Your task to perform on an android device: turn notification dots on Image 0: 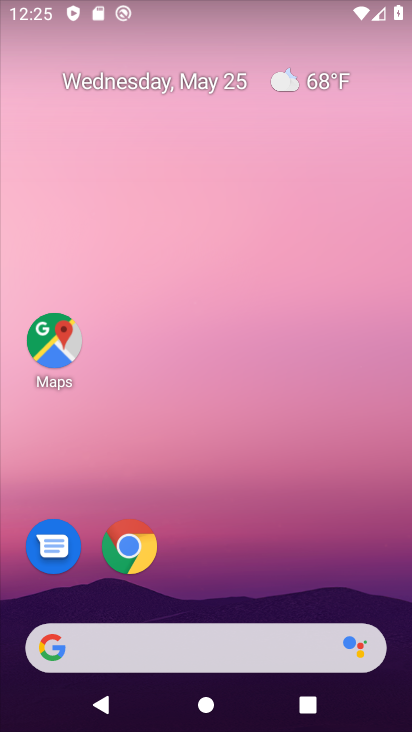
Step 0: drag from (306, 579) to (341, 140)
Your task to perform on an android device: turn notification dots on Image 1: 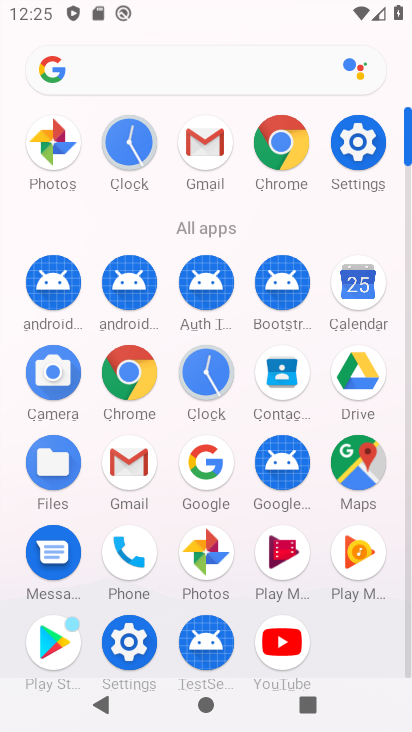
Step 1: click (355, 152)
Your task to perform on an android device: turn notification dots on Image 2: 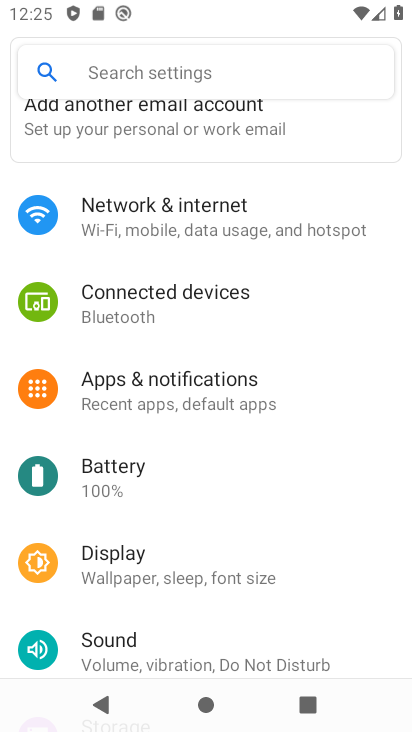
Step 2: click (260, 378)
Your task to perform on an android device: turn notification dots on Image 3: 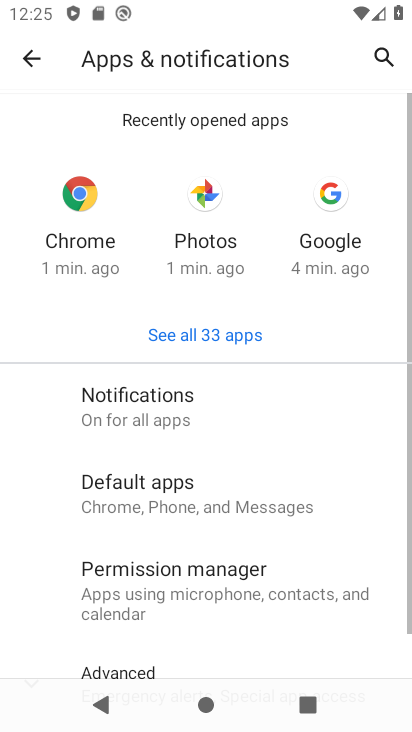
Step 3: click (268, 400)
Your task to perform on an android device: turn notification dots on Image 4: 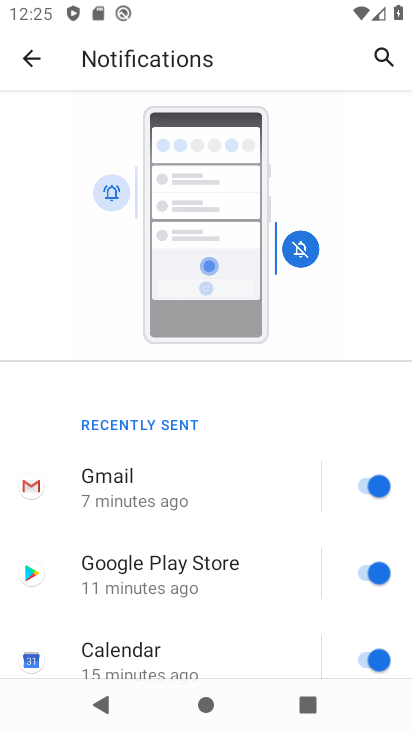
Step 4: drag from (296, 542) to (301, 209)
Your task to perform on an android device: turn notification dots on Image 5: 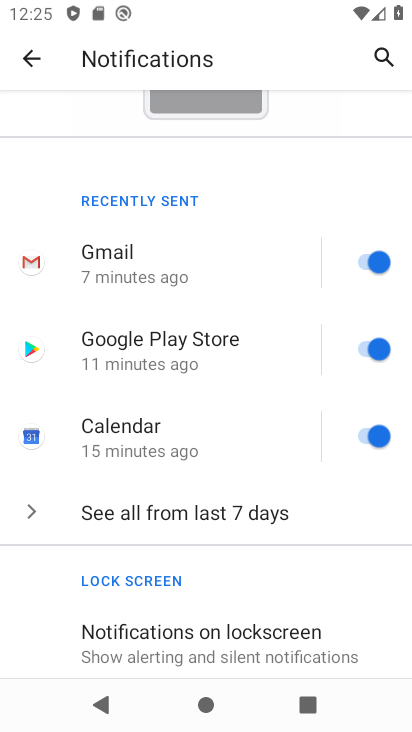
Step 5: drag from (224, 568) to (244, 236)
Your task to perform on an android device: turn notification dots on Image 6: 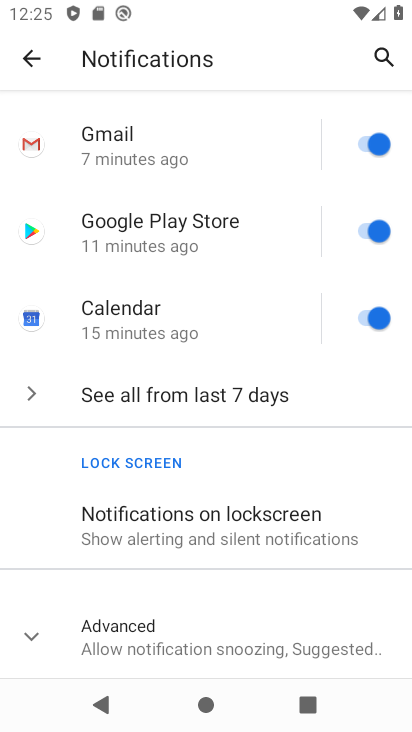
Step 6: click (231, 628)
Your task to perform on an android device: turn notification dots on Image 7: 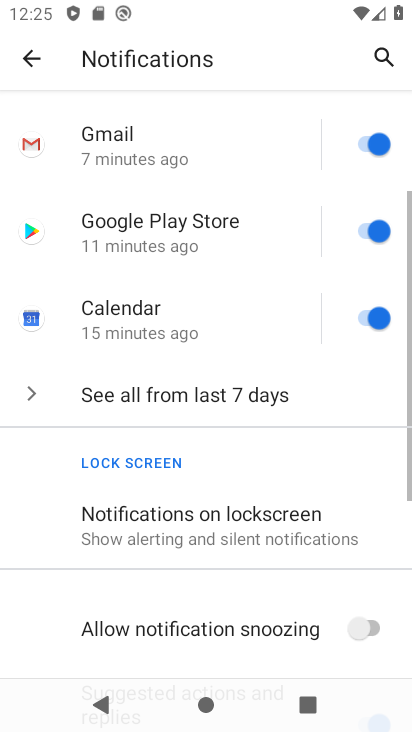
Step 7: drag from (254, 605) to (277, 290)
Your task to perform on an android device: turn notification dots on Image 8: 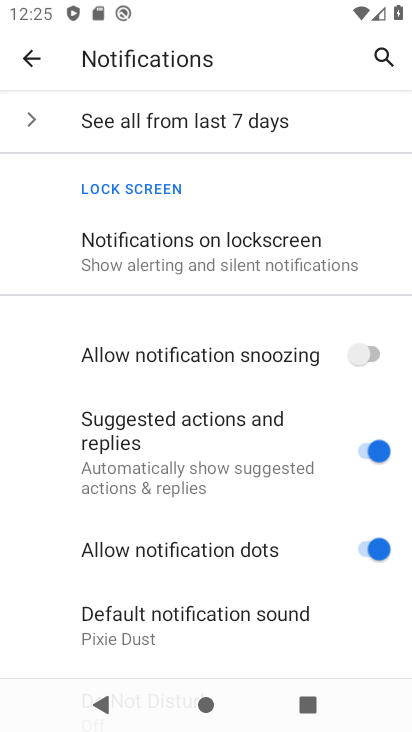
Step 8: click (370, 544)
Your task to perform on an android device: turn notification dots on Image 9: 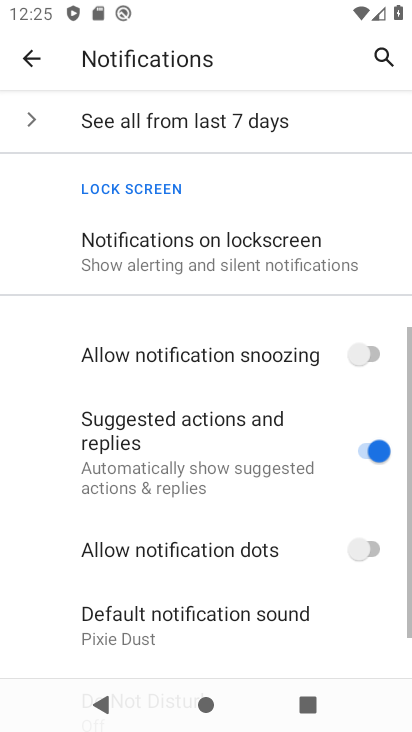
Step 9: task complete